Your task to perform on an android device: turn pop-ups on in chrome Image 0: 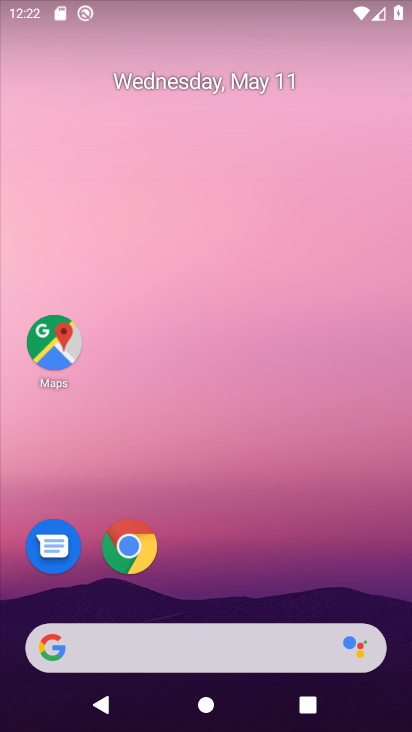
Step 0: drag from (259, 515) to (287, 254)
Your task to perform on an android device: turn pop-ups on in chrome Image 1: 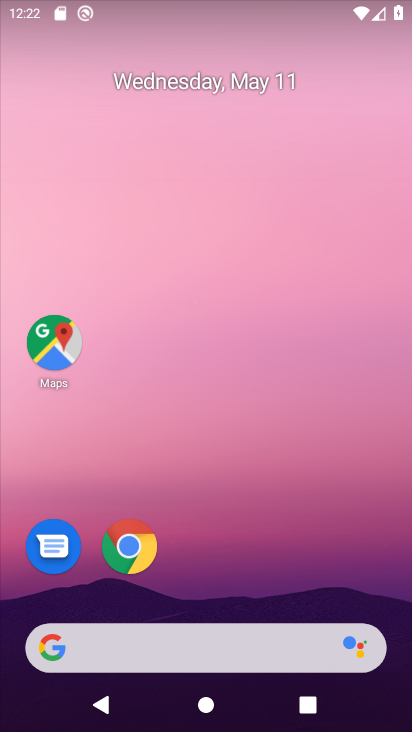
Step 1: drag from (229, 581) to (252, 250)
Your task to perform on an android device: turn pop-ups on in chrome Image 2: 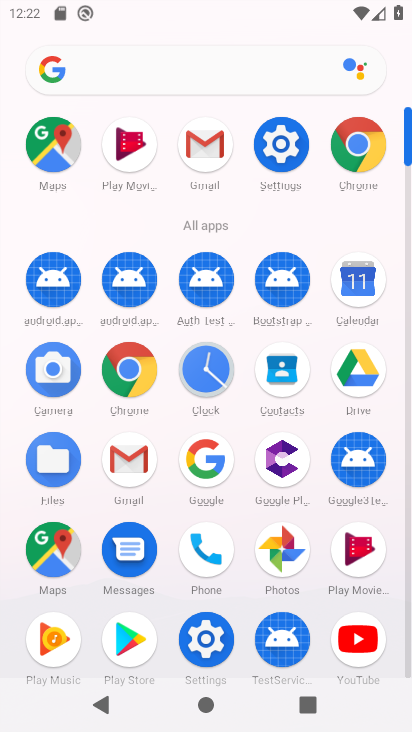
Step 2: click (356, 134)
Your task to perform on an android device: turn pop-ups on in chrome Image 3: 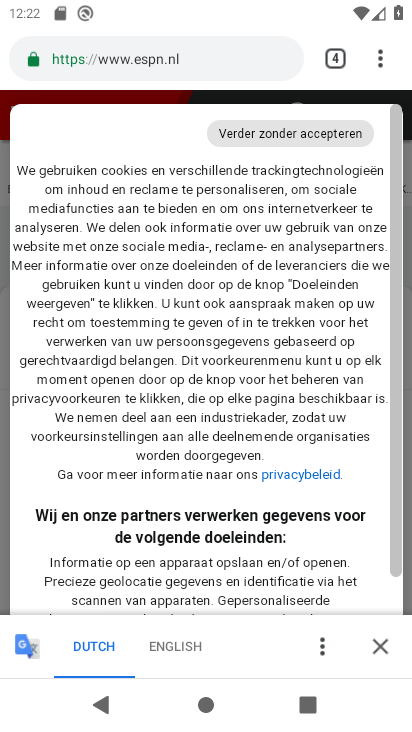
Step 3: click (367, 53)
Your task to perform on an android device: turn pop-ups on in chrome Image 4: 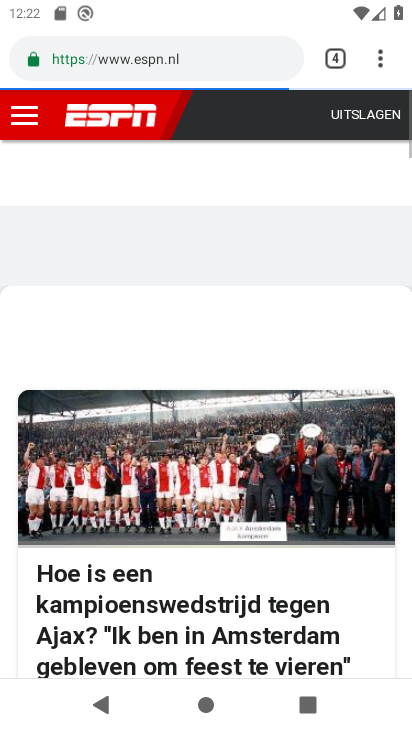
Step 4: click (360, 60)
Your task to perform on an android device: turn pop-ups on in chrome Image 5: 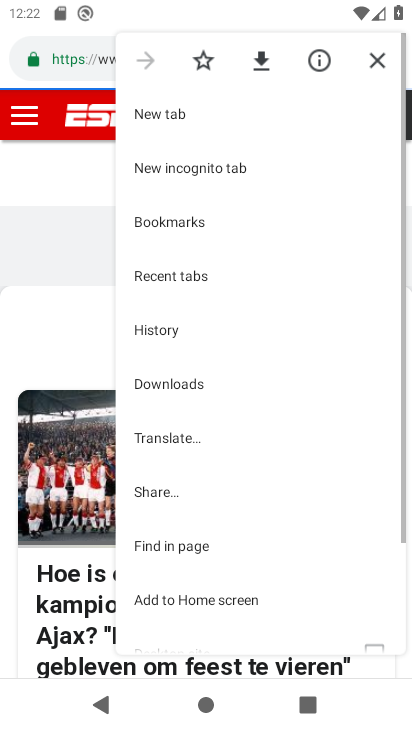
Step 5: drag from (208, 594) to (256, 252)
Your task to perform on an android device: turn pop-ups on in chrome Image 6: 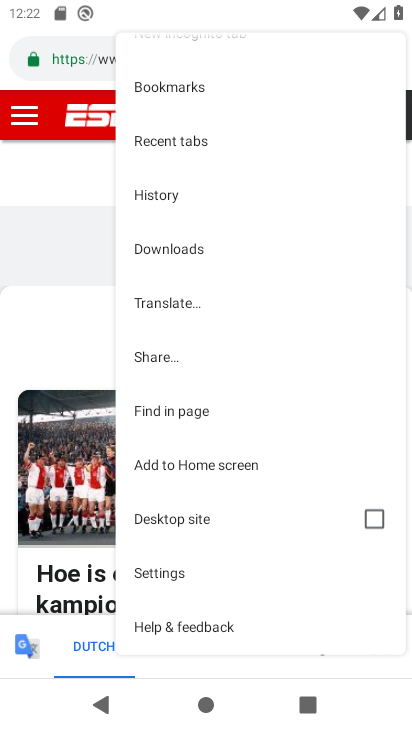
Step 6: click (182, 572)
Your task to perform on an android device: turn pop-ups on in chrome Image 7: 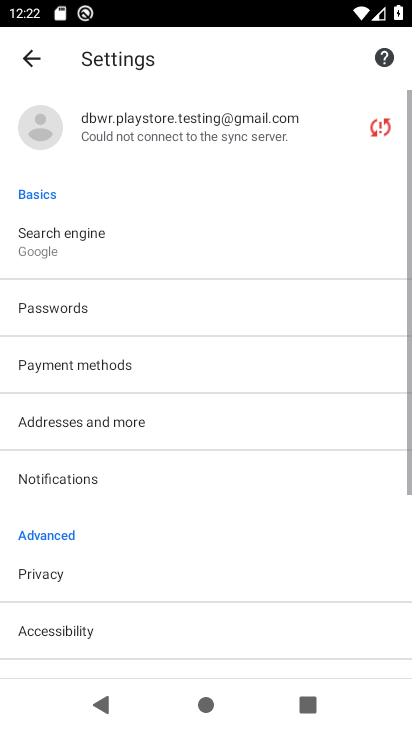
Step 7: drag from (167, 595) to (240, 229)
Your task to perform on an android device: turn pop-ups on in chrome Image 8: 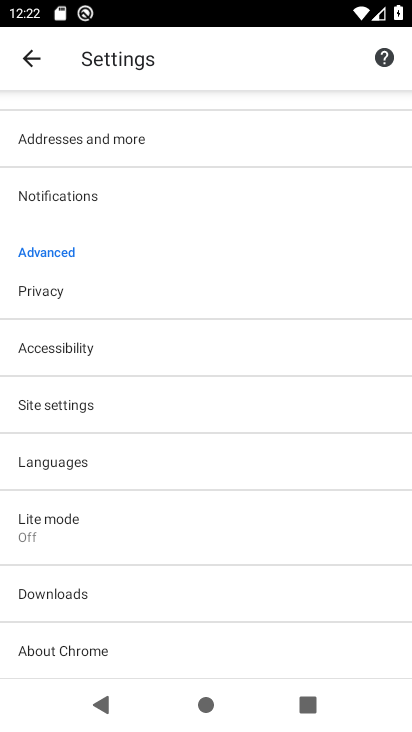
Step 8: click (89, 403)
Your task to perform on an android device: turn pop-ups on in chrome Image 9: 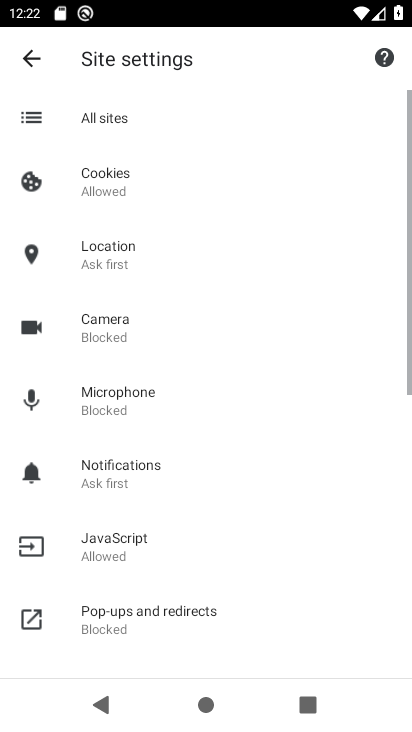
Step 9: click (155, 617)
Your task to perform on an android device: turn pop-ups on in chrome Image 10: 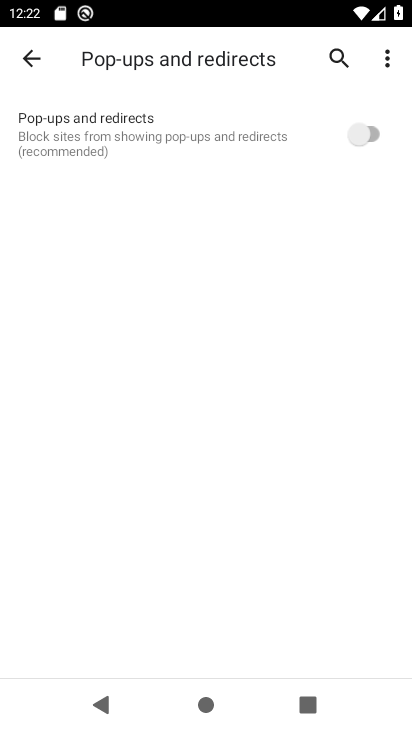
Step 10: click (355, 123)
Your task to perform on an android device: turn pop-ups on in chrome Image 11: 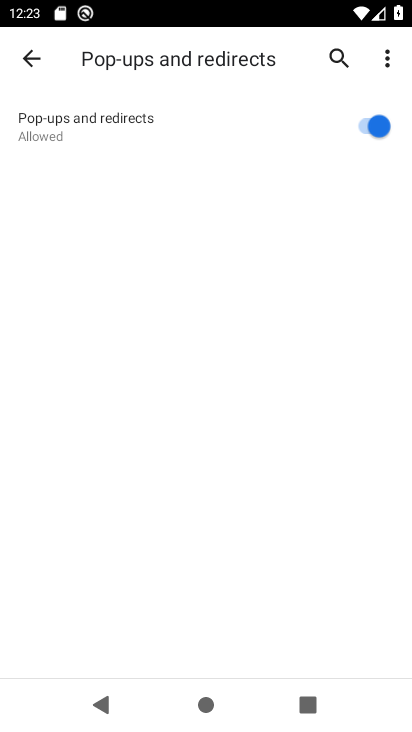
Step 11: task complete